Your task to perform on an android device: find which apps use the phone's location Image 0: 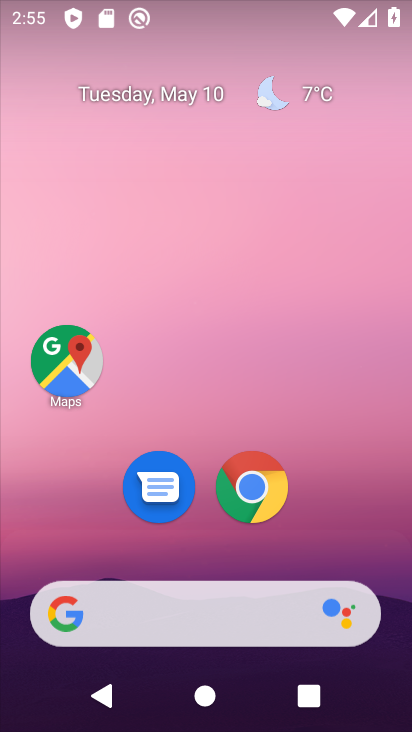
Step 0: drag from (337, 434) to (309, 101)
Your task to perform on an android device: find which apps use the phone's location Image 1: 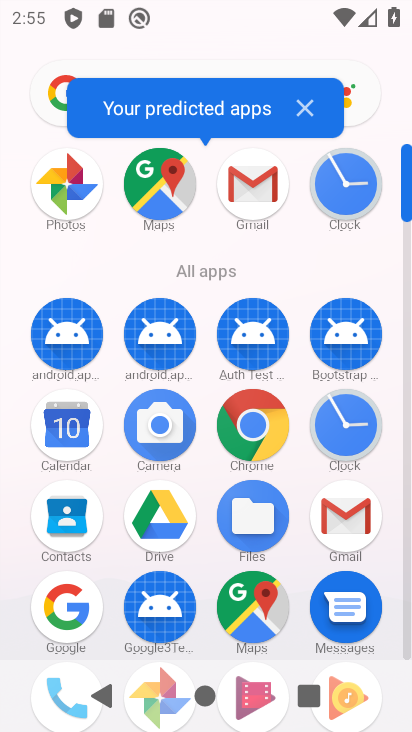
Step 1: drag from (292, 576) to (324, 116)
Your task to perform on an android device: find which apps use the phone's location Image 2: 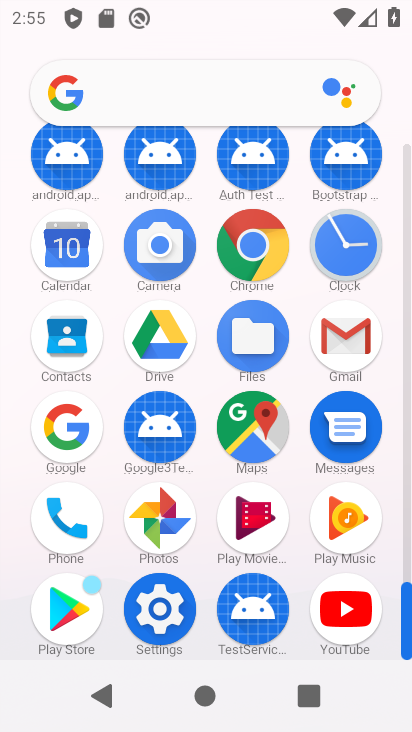
Step 2: click (160, 618)
Your task to perform on an android device: find which apps use the phone's location Image 3: 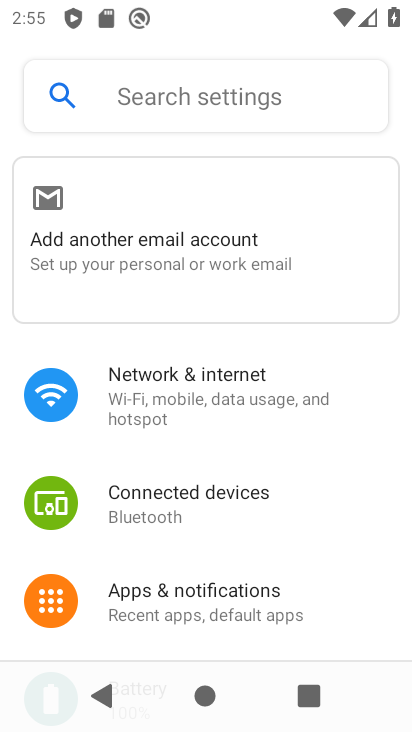
Step 3: drag from (305, 582) to (310, 237)
Your task to perform on an android device: find which apps use the phone's location Image 4: 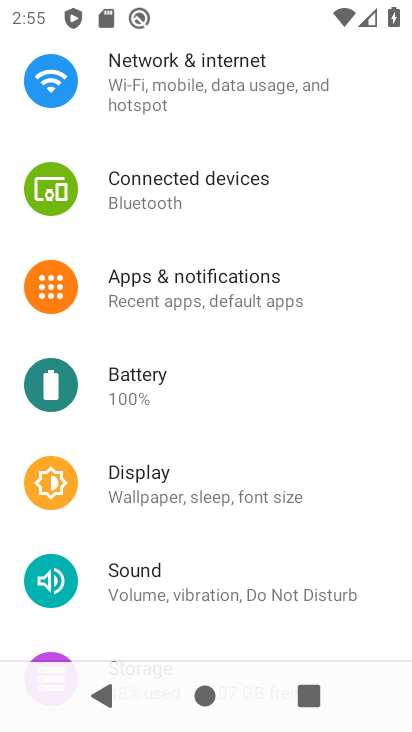
Step 4: drag from (262, 559) to (281, 157)
Your task to perform on an android device: find which apps use the phone's location Image 5: 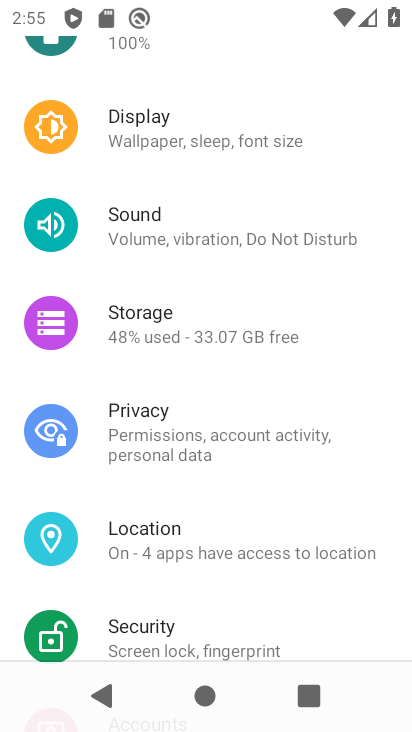
Step 5: click (178, 544)
Your task to perform on an android device: find which apps use the phone's location Image 6: 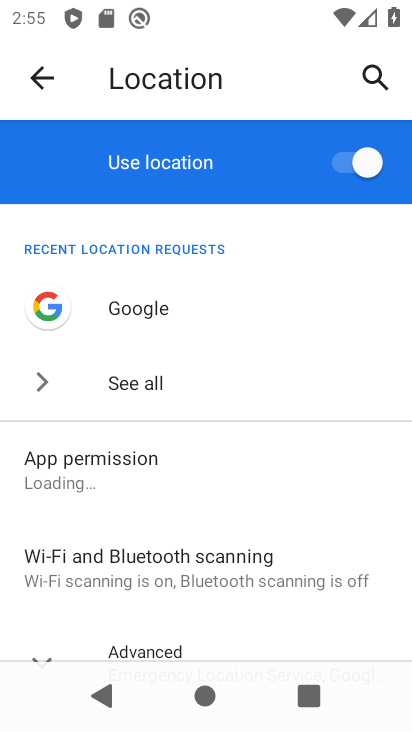
Step 6: drag from (324, 558) to (311, 246)
Your task to perform on an android device: find which apps use the phone's location Image 7: 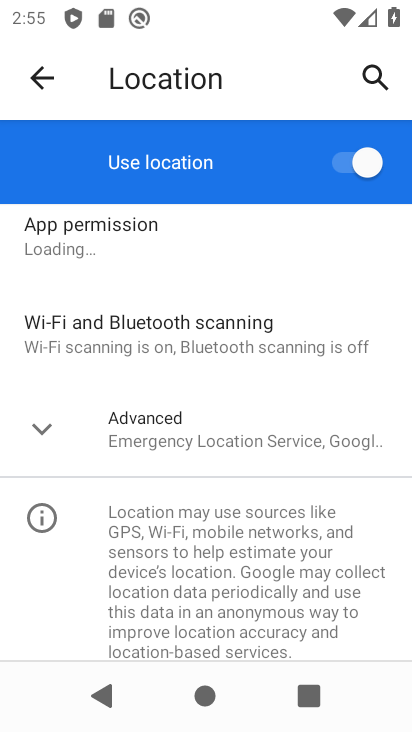
Step 7: click (154, 415)
Your task to perform on an android device: find which apps use the phone's location Image 8: 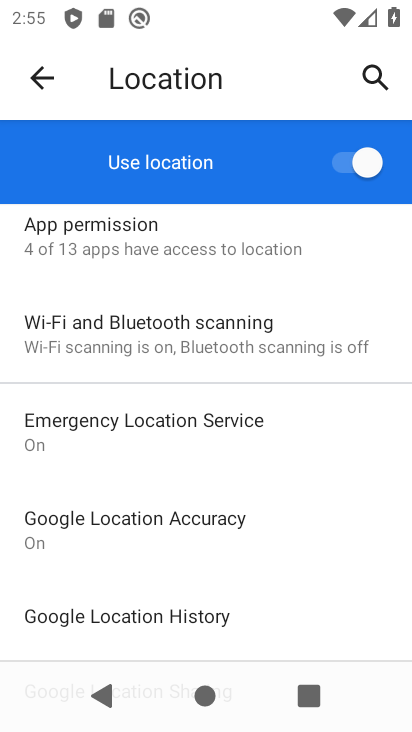
Step 8: click (197, 329)
Your task to perform on an android device: find which apps use the phone's location Image 9: 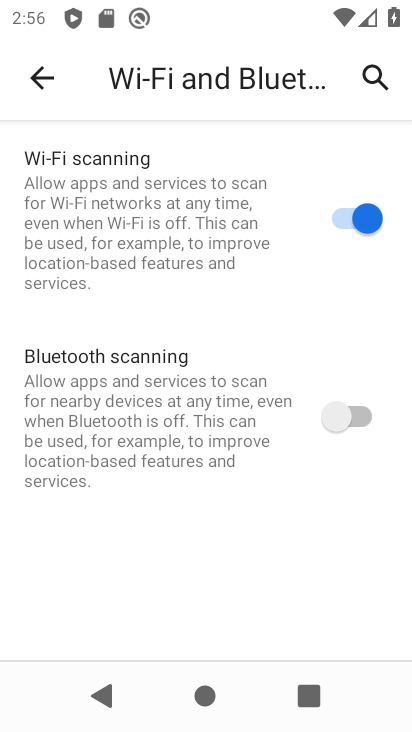
Step 9: click (45, 92)
Your task to perform on an android device: find which apps use the phone's location Image 10: 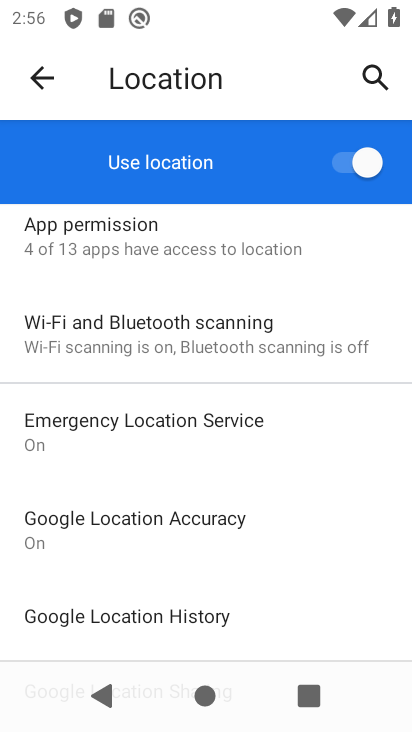
Step 10: click (107, 230)
Your task to perform on an android device: find which apps use the phone's location Image 11: 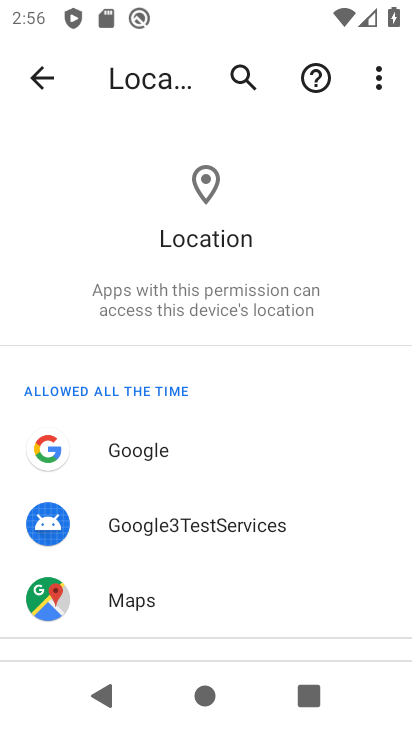
Step 11: task complete